Your task to perform on an android device: open a bookmark in the chrome app Image 0: 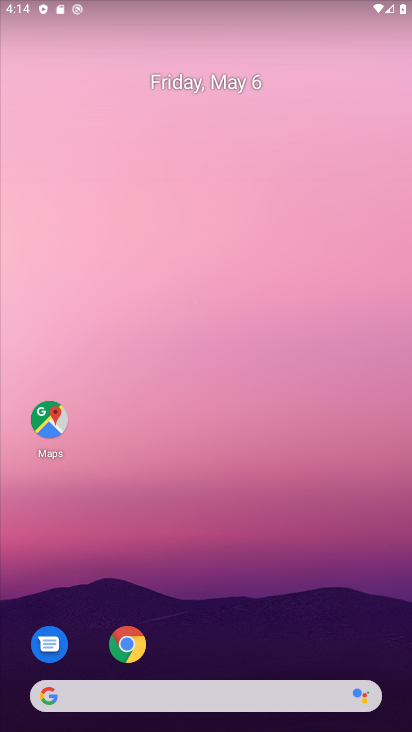
Step 0: drag from (326, 676) to (56, 19)
Your task to perform on an android device: open a bookmark in the chrome app Image 1: 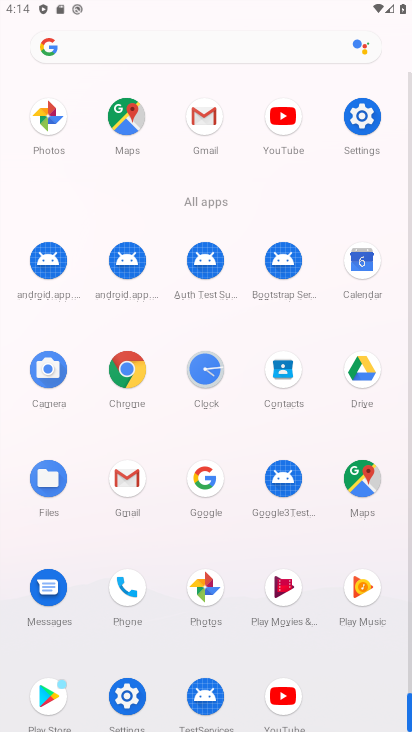
Step 1: click (135, 367)
Your task to perform on an android device: open a bookmark in the chrome app Image 2: 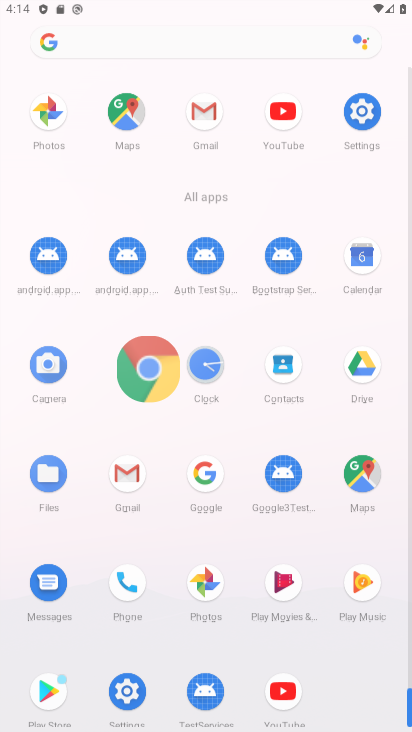
Step 2: click (134, 371)
Your task to perform on an android device: open a bookmark in the chrome app Image 3: 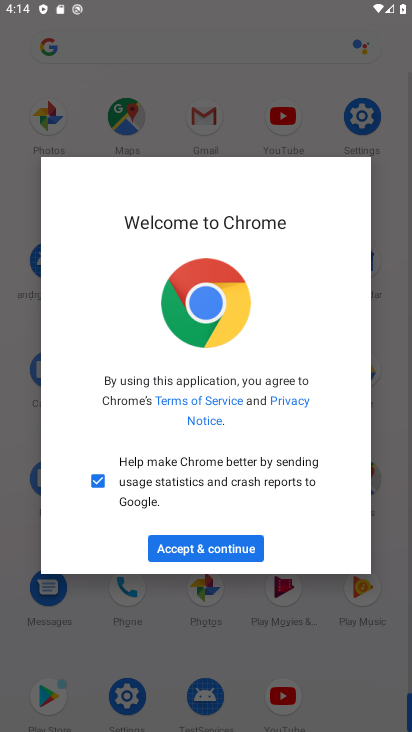
Step 3: click (181, 541)
Your task to perform on an android device: open a bookmark in the chrome app Image 4: 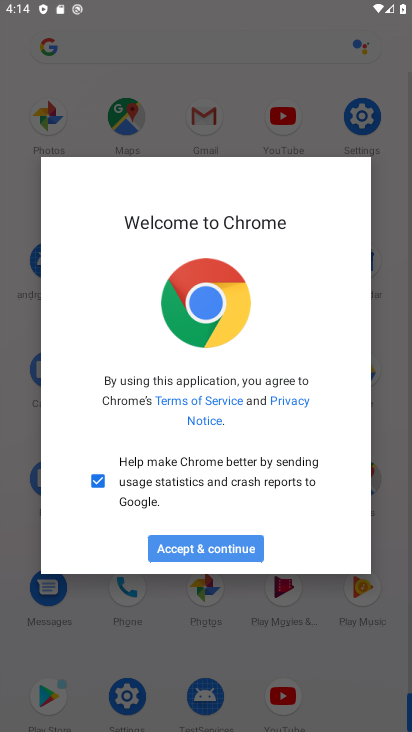
Step 4: click (182, 540)
Your task to perform on an android device: open a bookmark in the chrome app Image 5: 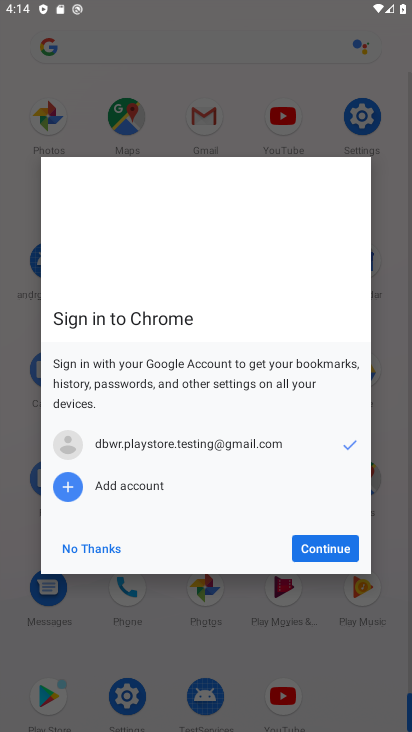
Step 5: click (335, 550)
Your task to perform on an android device: open a bookmark in the chrome app Image 6: 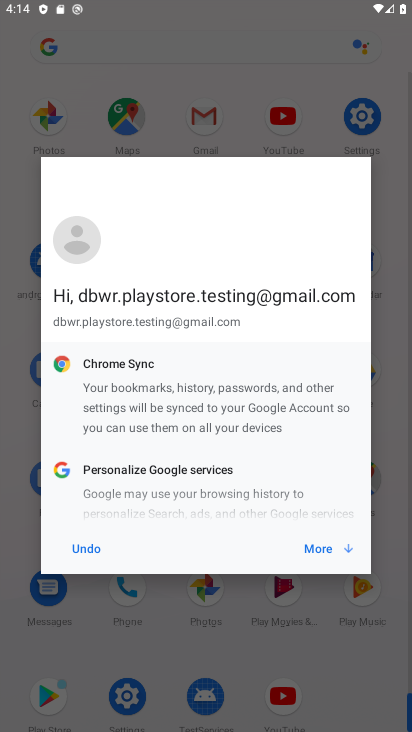
Step 6: click (339, 545)
Your task to perform on an android device: open a bookmark in the chrome app Image 7: 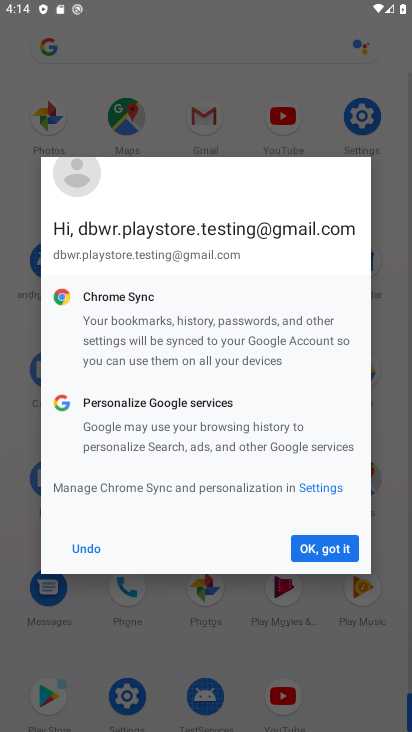
Step 7: click (339, 545)
Your task to perform on an android device: open a bookmark in the chrome app Image 8: 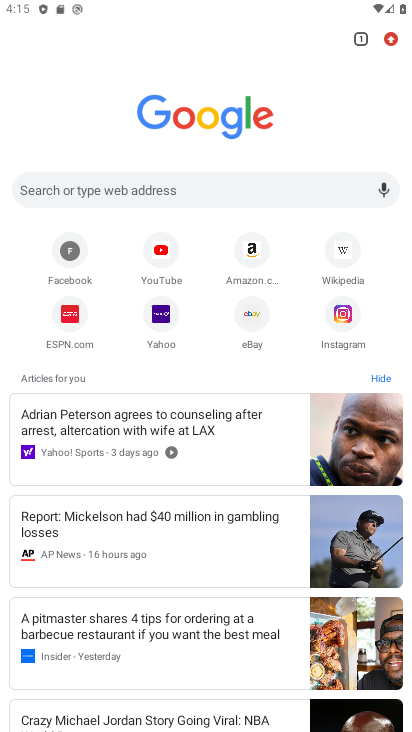
Step 8: click (393, 546)
Your task to perform on an android device: open a bookmark in the chrome app Image 9: 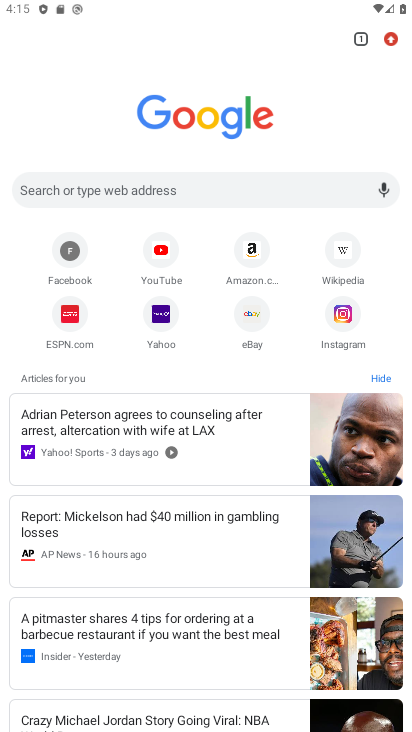
Step 9: drag from (316, 157) to (325, 534)
Your task to perform on an android device: open a bookmark in the chrome app Image 10: 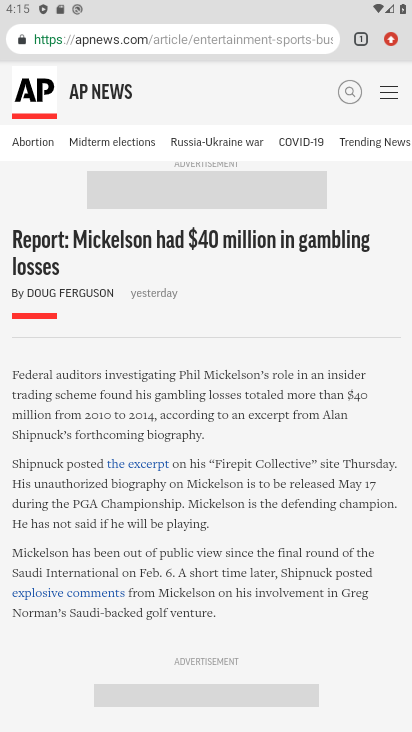
Step 10: click (391, 36)
Your task to perform on an android device: open a bookmark in the chrome app Image 11: 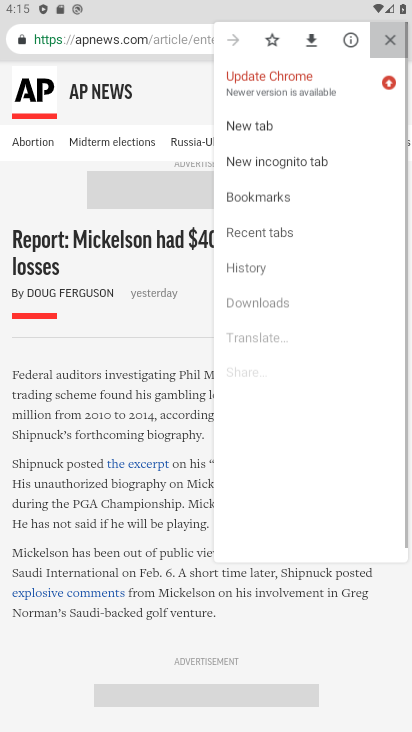
Step 11: click (391, 44)
Your task to perform on an android device: open a bookmark in the chrome app Image 12: 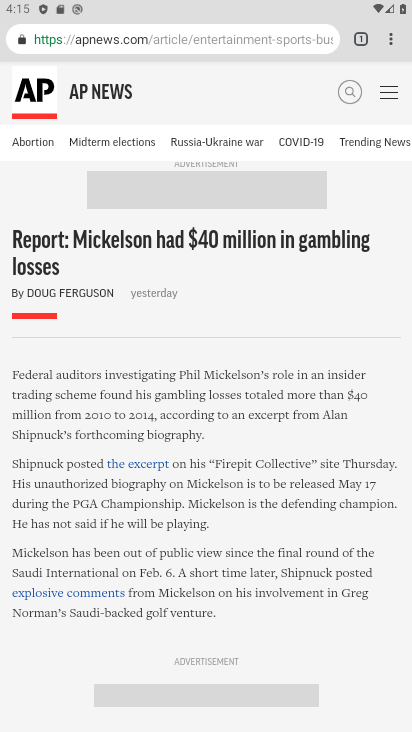
Step 12: click (393, 39)
Your task to perform on an android device: open a bookmark in the chrome app Image 13: 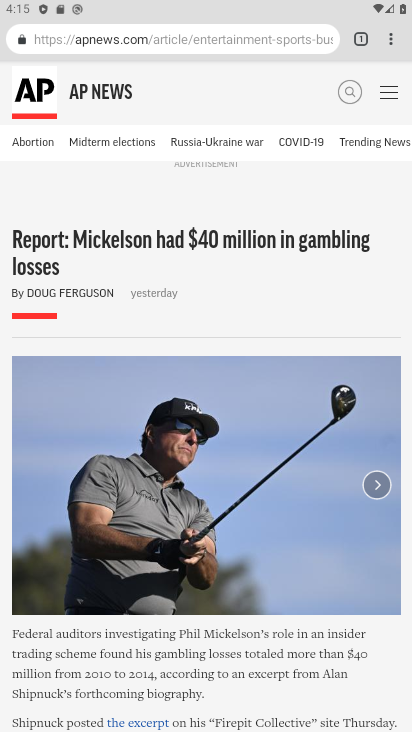
Step 13: click (392, 42)
Your task to perform on an android device: open a bookmark in the chrome app Image 14: 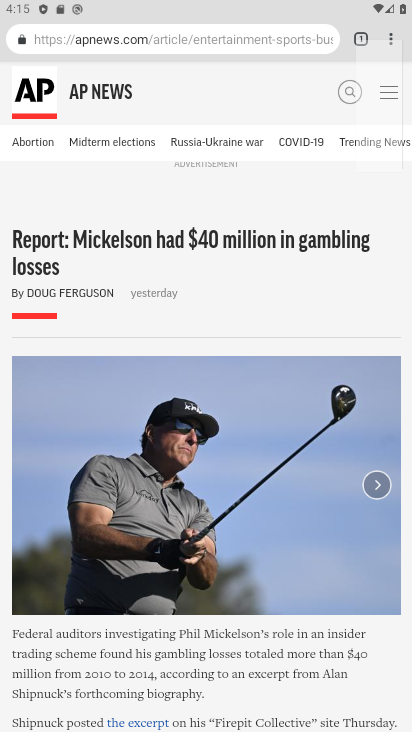
Step 14: click (392, 42)
Your task to perform on an android device: open a bookmark in the chrome app Image 15: 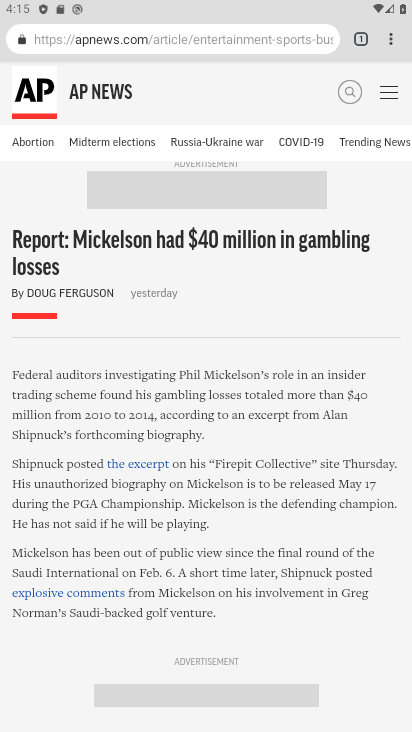
Step 15: drag from (390, 40) to (256, 194)
Your task to perform on an android device: open a bookmark in the chrome app Image 16: 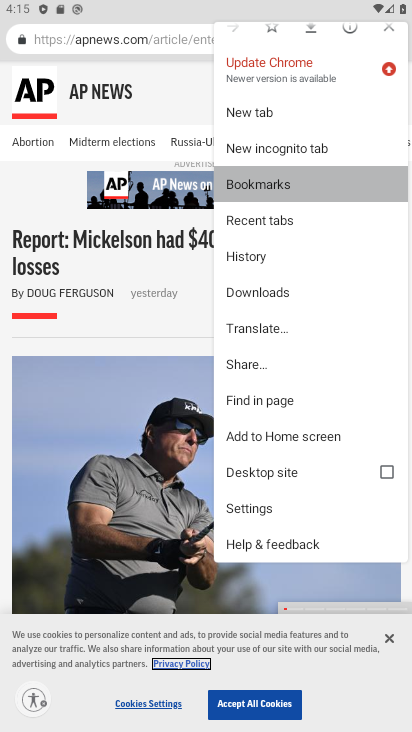
Step 16: click (256, 194)
Your task to perform on an android device: open a bookmark in the chrome app Image 17: 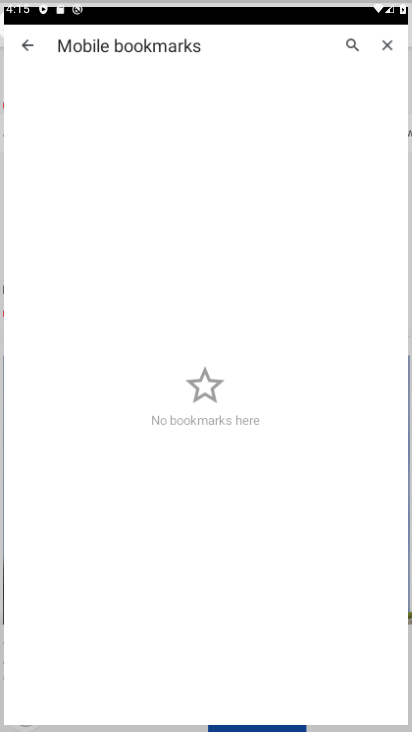
Step 17: click (256, 194)
Your task to perform on an android device: open a bookmark in the chrome app Image 18: 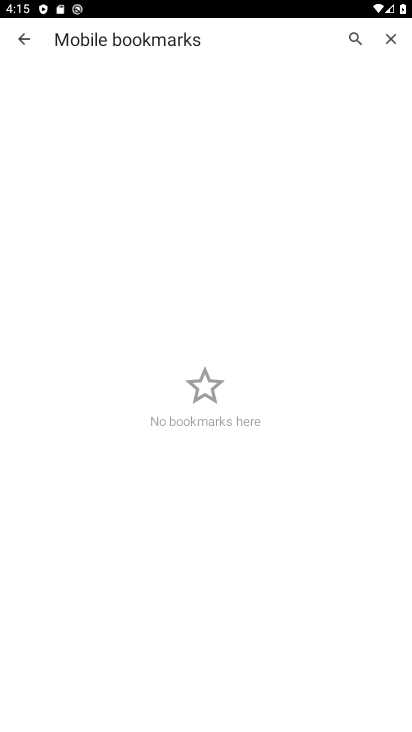
Step 18: task complete